Your task to perform on an android device: Open sound settings Image 0: 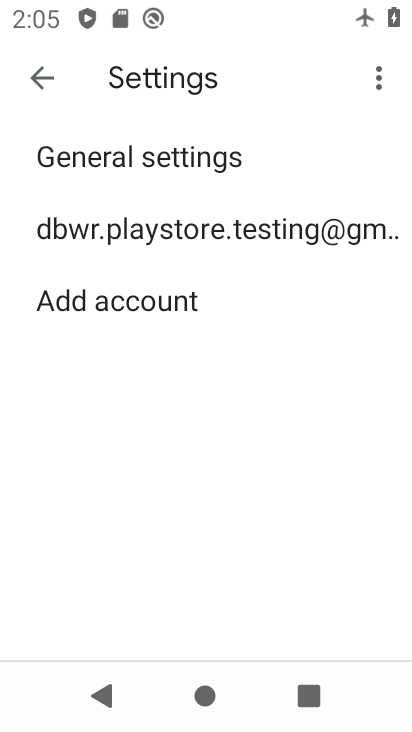
Step 0: press home button
Your task to perform on an android device: Open sound settings Image 1: 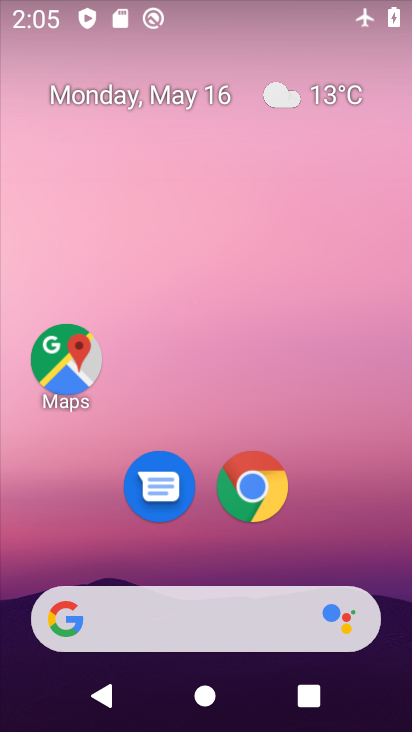
Step 1: drag from (333, 485) to (325, 0)
Your task to perform on an android device: Open sound settings Image 2: 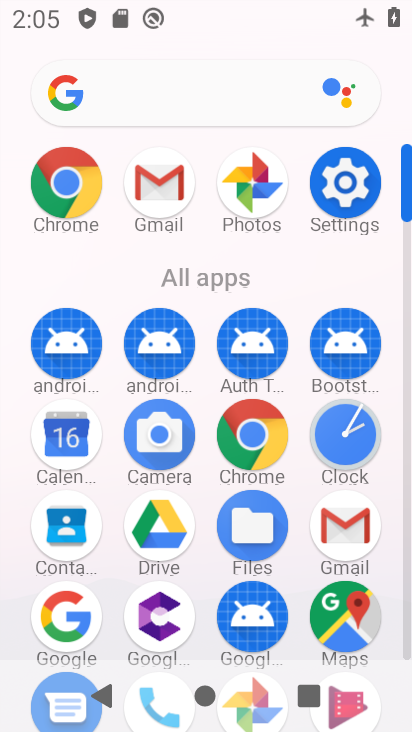
Step 2: click (376, 202)
Your task to perform on an android device: Open sound settings Image 3: 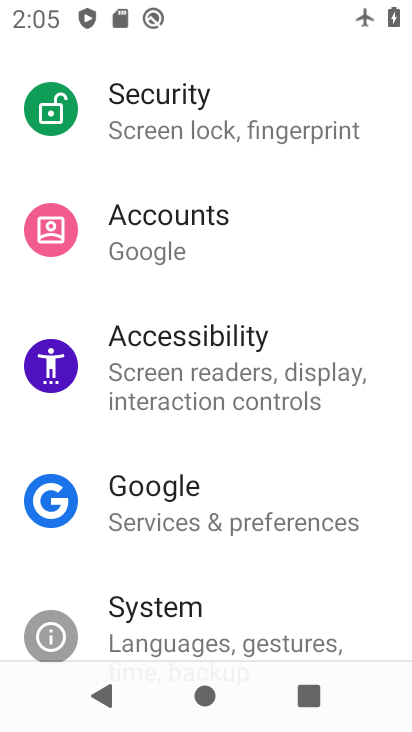
Step 3: drag from (236, 545) to (177, 223)
Your task to perform on an android device: Open sound settings Image 4: 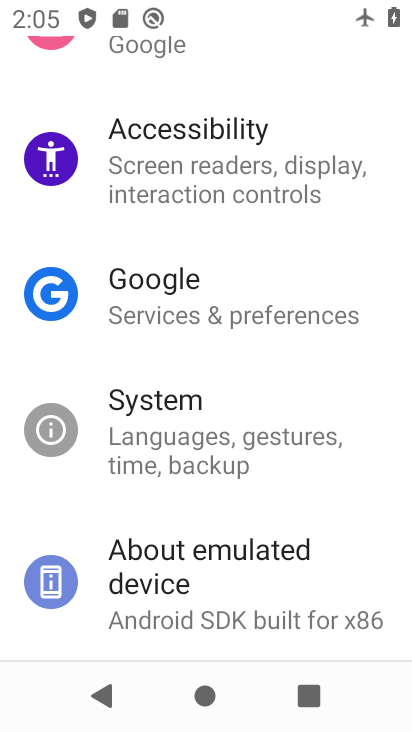
Step 4: drag from (177, 223) to (249, 510)
Your task to perform on an android device: Open sound settings Image 5: 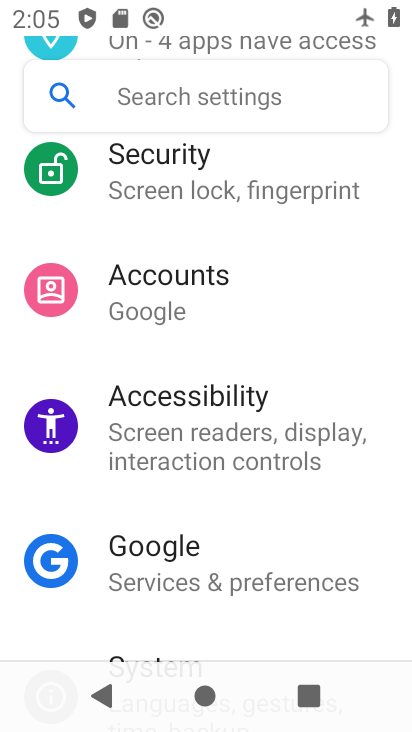
Step 5: drag from (278, 195) to (304, 527)
Your task to perform on an android device: Open sound settings Image 6: 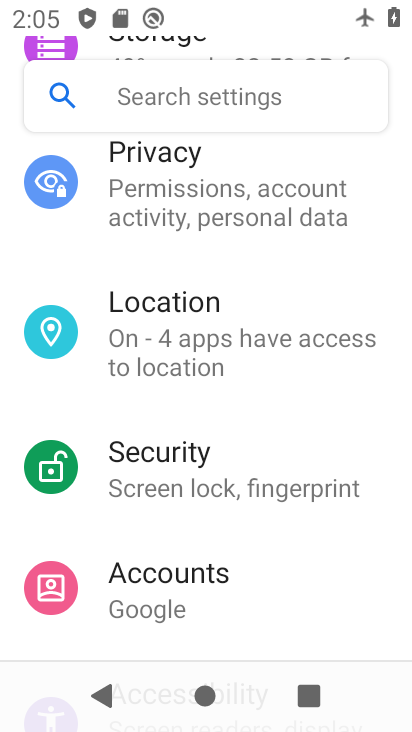
Step 6: drag from (233, 206) to (275, 450)
Your task to perform on an android device: Open sound settings Image 7: 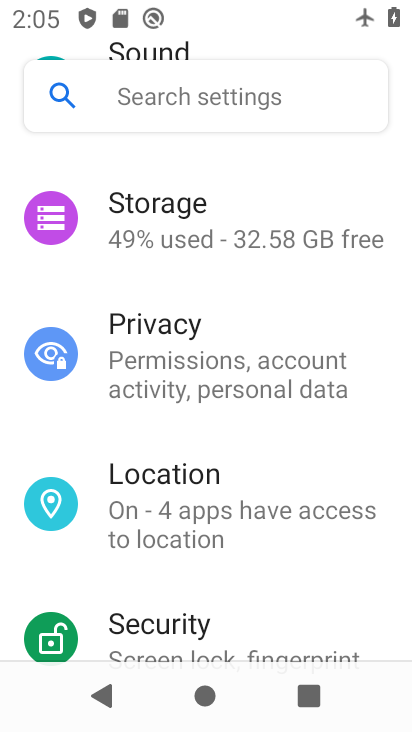
Step 7: drag from (206, 213) to (268, 473)
Your task to perform on an android device: Open sound settings Image 8: 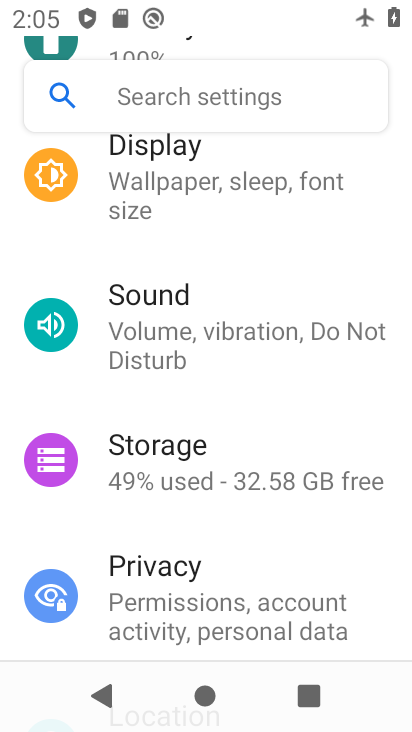
Step 8: drag from (236, 528) to (219, 198)
Your task to perform on an android device: Open sound settings Image 9: 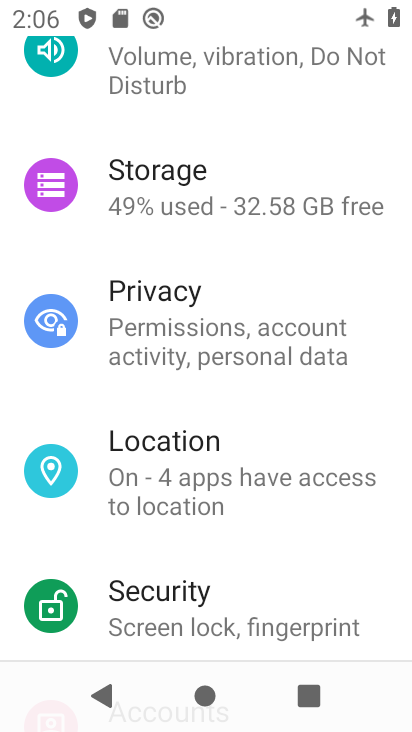
Step 9: drag from (132, 544) to (153, 322)
Your task to perform on an android device: Open sound settings Image 10: 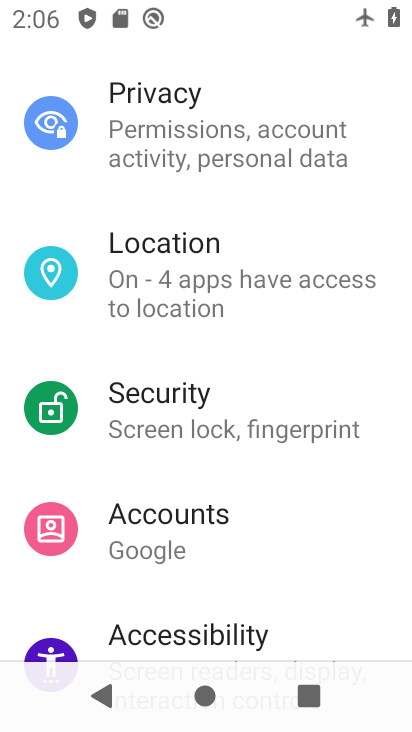
Step 10: drag from (187, 252) to (245, 526)
Your task to perform on an android device: Open sound settings Image 11: 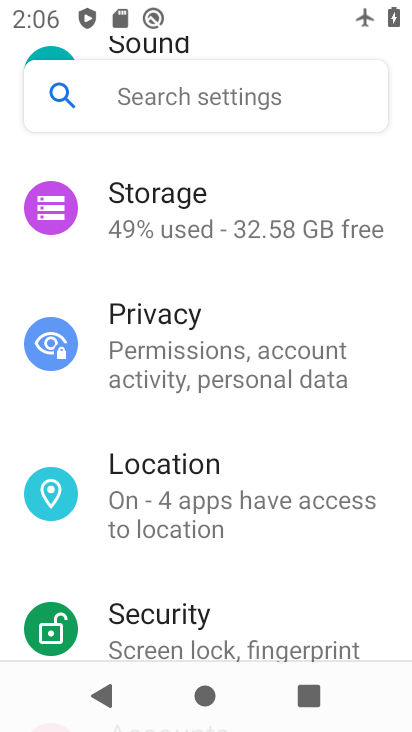
Step 11: drag from (219, 595) to (234, 320)
Your task to perform on an android device: Open sound settings Image 12: 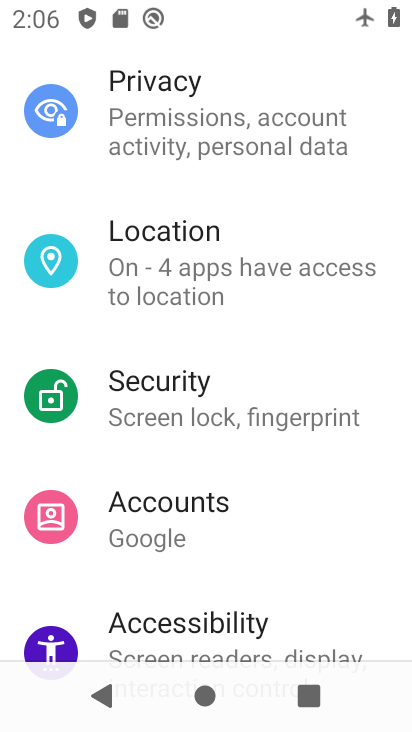
Step 12: drag from (212, 547) to (220, 404)
Your task to perform on an android device: Open sound settings Image 13: 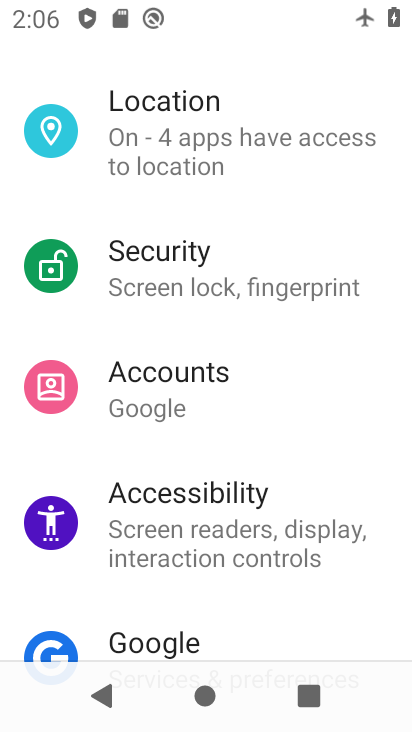
Step 13: drag from (251, 581) to (238, 216)
Your task to perform on an android device: Open sound settings Image 14: 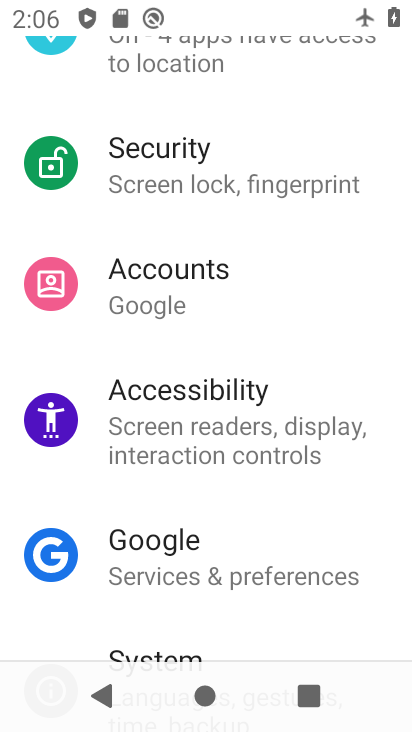
Step 14: drag from (244, 226) to (265, 539)
Your task to perform on an android device: Open sound settings Image 15: 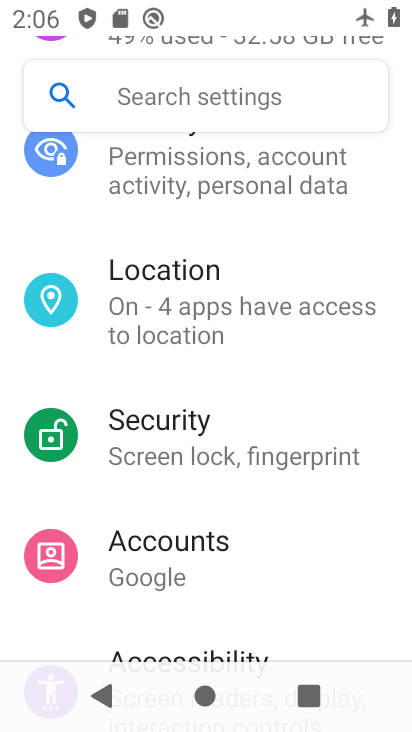
Step 15: drag from (313, 252) to (319, 568)
Your task to perform on an android device: Open sound settings Image 16: 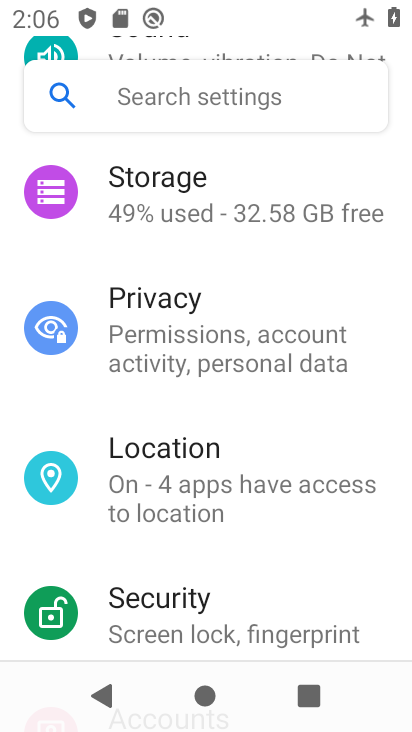
Step 16: drag from (238, 278) to (266, 557)
Your task to perform on an android device: Open sound settings Image 17: 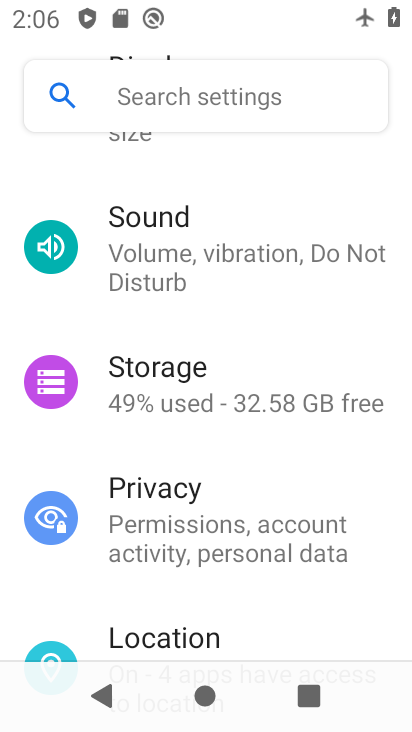
Step 17: click (217, 276)
Your task to perform on an android device: Open sound settings Image 18: 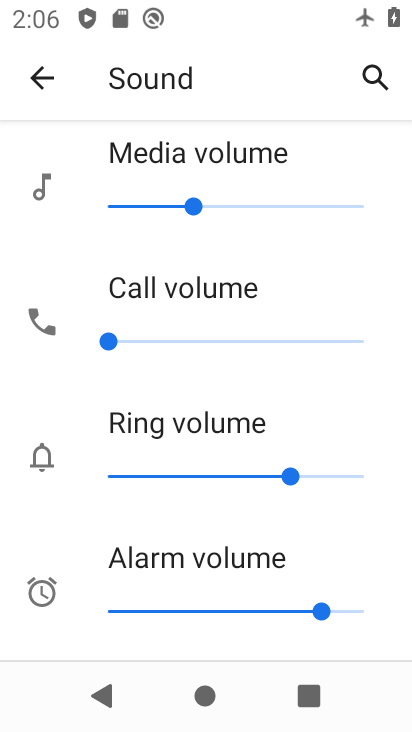
Step 18: task complete